Your task to perform on an android device: Go to battery settings Image 0: 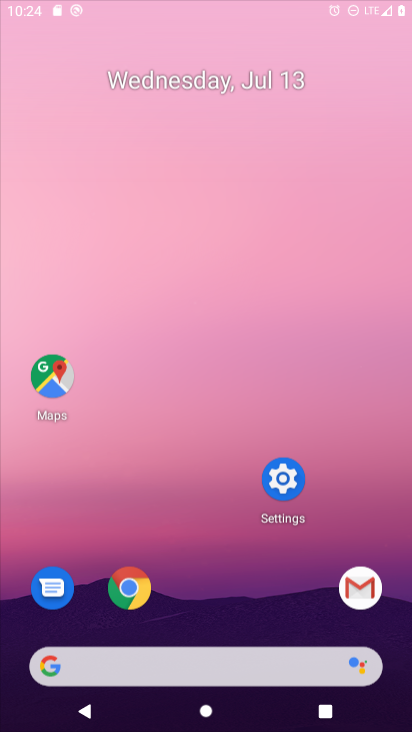
Step 0: press home button
Your task to perform on an android device: Go to battery settings Image 1: 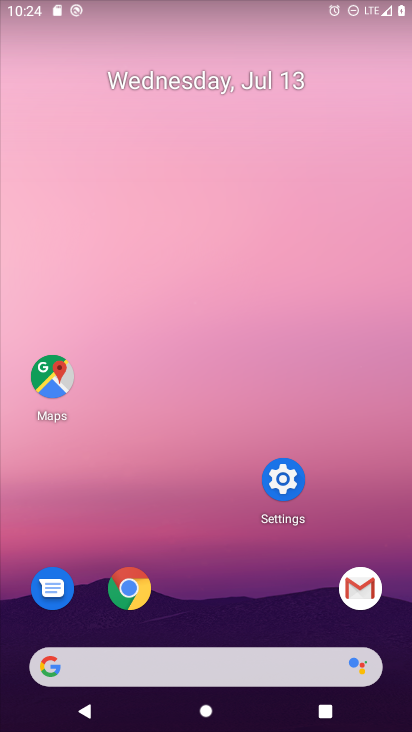
Step 1: click (271, 476)
Your task to perform on an android device: Go to battery settings Image 2: 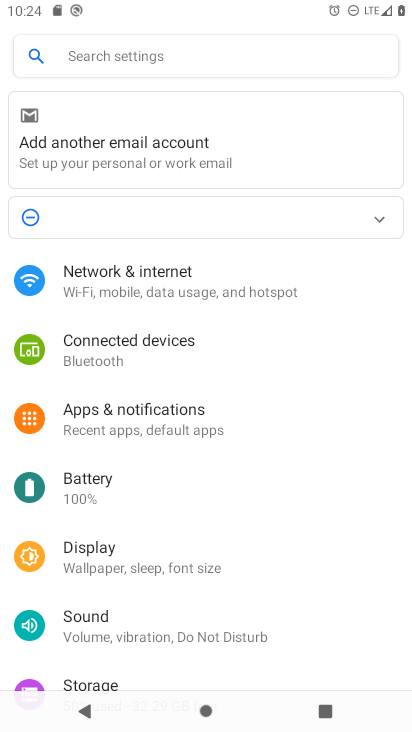
Step 2: click (98, 485)
Your task to perform on an android device: Go to battery settings Image 3: 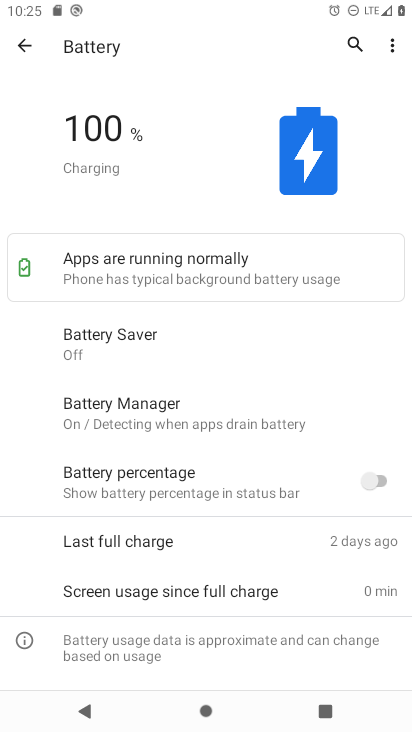
Step 3: task complete